Your task to perform on an android device: check storage Image 0: 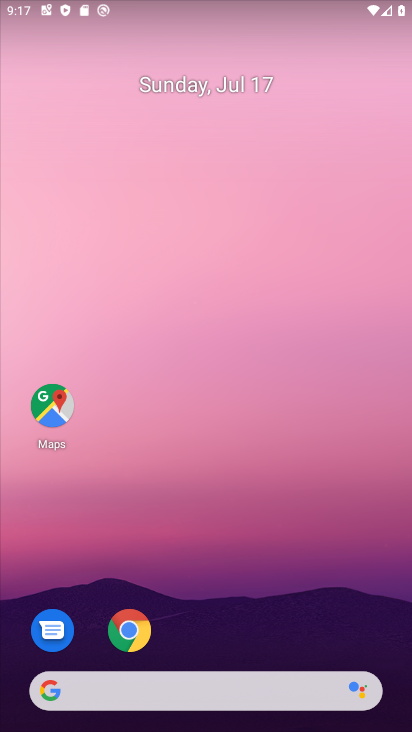
Step 0: drag from (230, 703) to (185, 85)
Your task to perform on an android device: check storage Image 1: 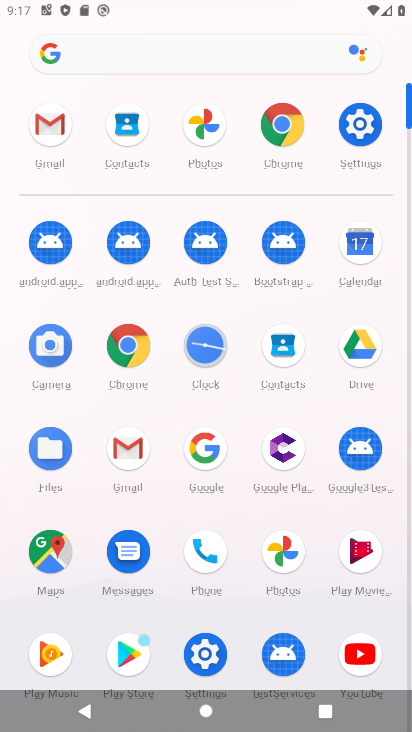
Step 1: click (351, 109)
Your task to perform on an android device: check storage Image 2: 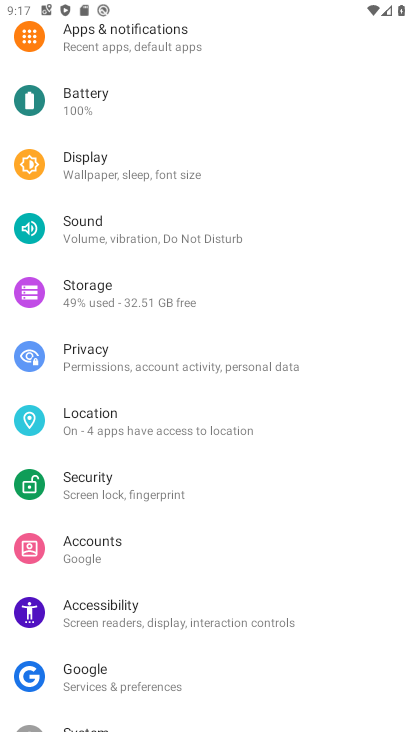
Step 2: click (112, 289)
Your task to perform on an android device: check storage Image 3: 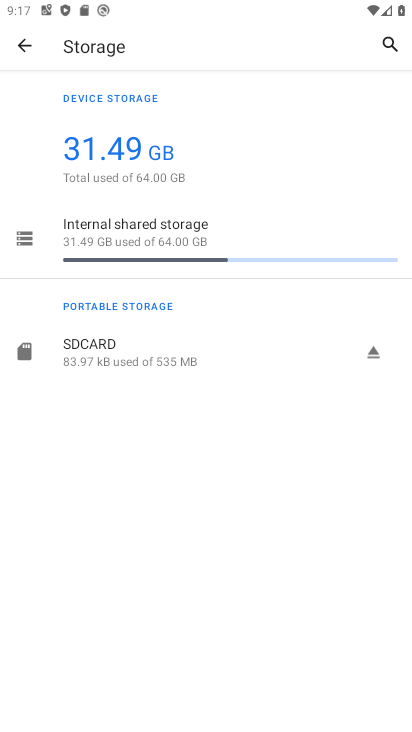
Step 3: task complete